Your task to perform on an android device: toggle translation in the chrome app Image 0: 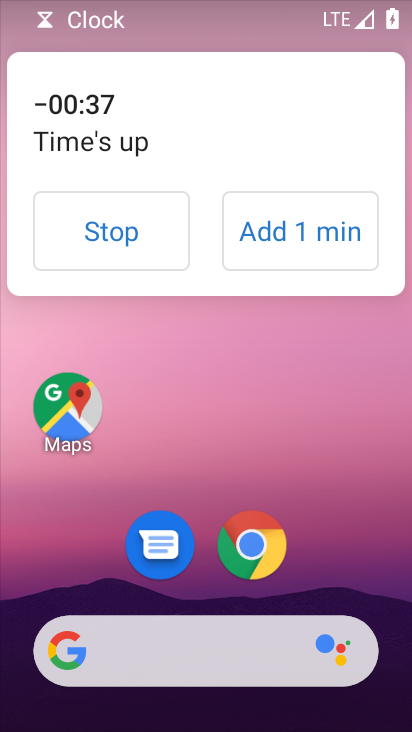
Step 0: click (157, 245)
Your task to perform on an android device: toggle translation in the chrome app Image 1: 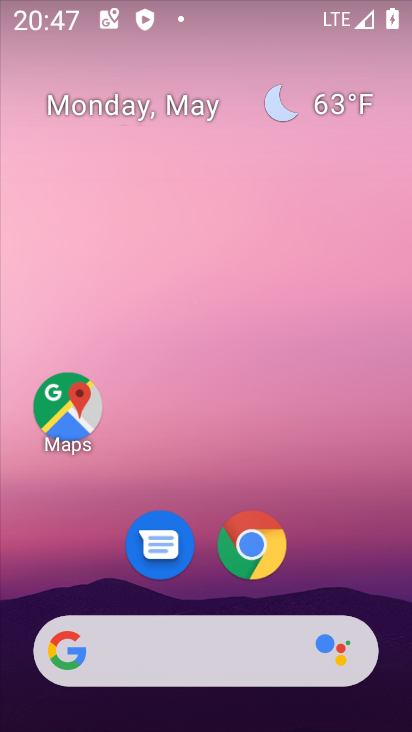
Step 1: click (263, 554)
Your task to perform on an android device: toggle translation in the chrome app Image 2: 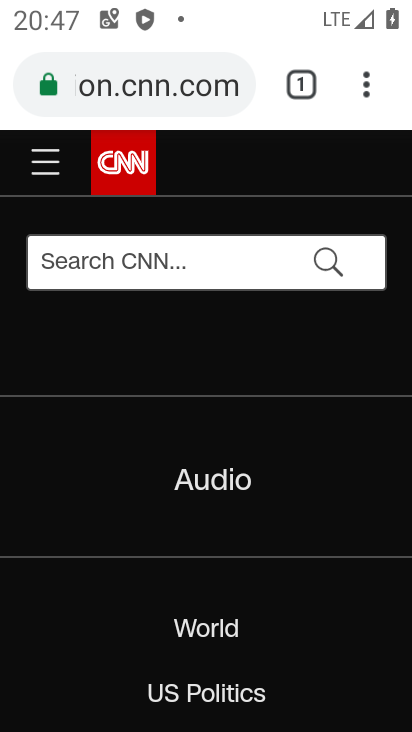
Step 2: drag from (362, 85) to (196, 581)
Your task to perform on an android device: toggle translation in the chrome app Image 3: 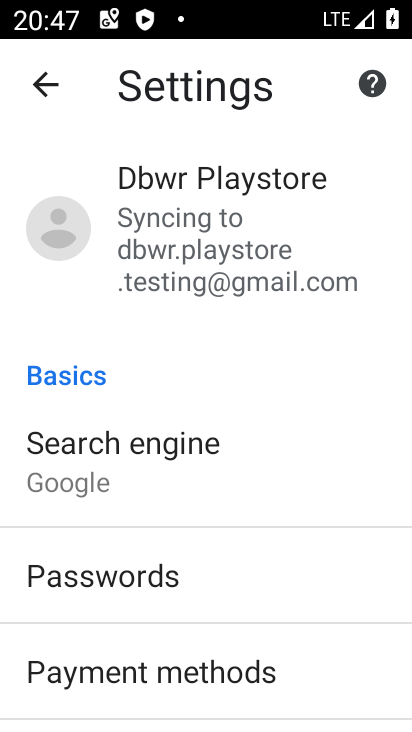
Step 3: drag from (164, 640) to (240, 179)
Your task to perform on an android device: toggle translation in the chrome app Image 4: 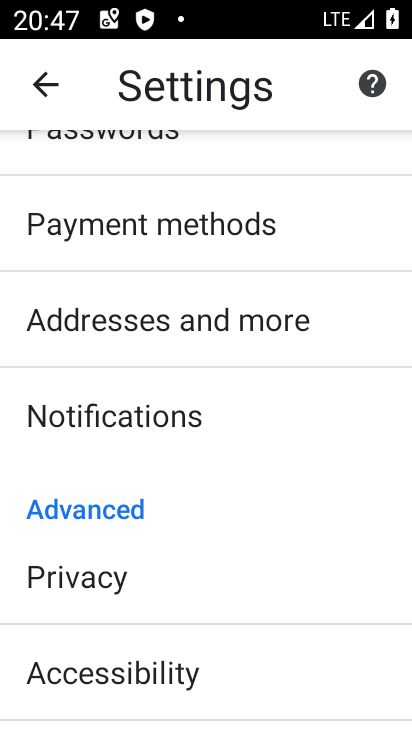
Step 4: drag from (130, 596) to (179, 108)
Your task to perform on an android device: toggle translation in the chrome app Image 5: 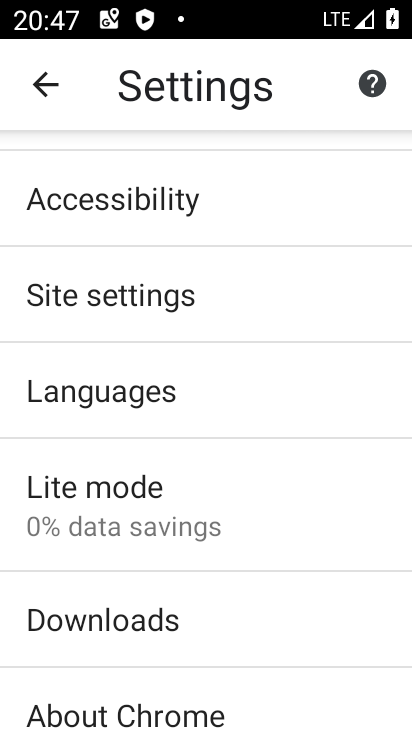
Step 5: click (144, 375)
Your task to perform on an android device: toggle translation in the chrome app Image 6: 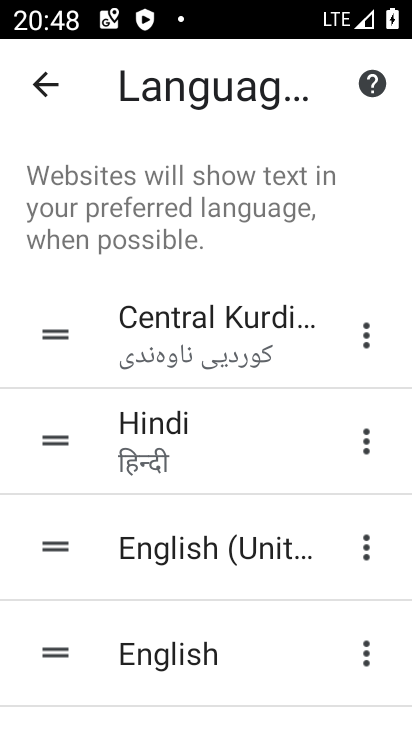
Step 6: drag from (208, 483) to (231, 119)
Your task to perform on an android device: toggle translation in the chrome app Image 7: 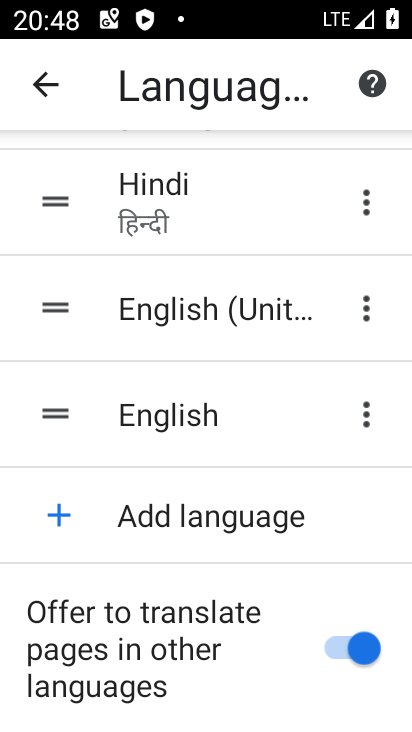
Step 7: click (350, 652)
Your task to perform on an android device: toggle translation in the chrome app Image 8: 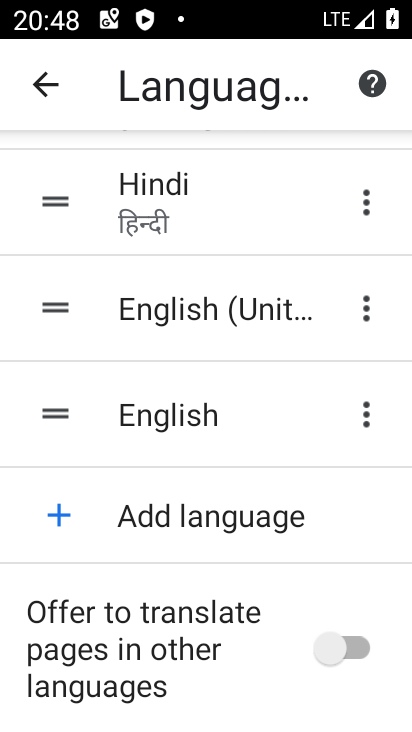
Step 8: task complete